Your task to perform on an android device: Open the web browser Image 0: 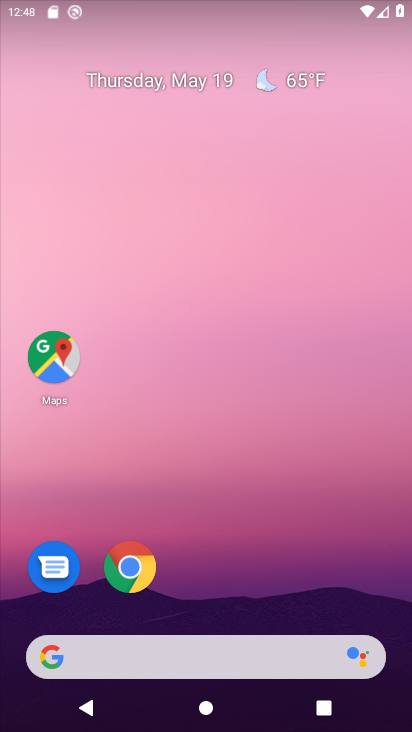
Step 0: click (129, 570)
Your task to perform on an android device: Open the web browser Image 1: 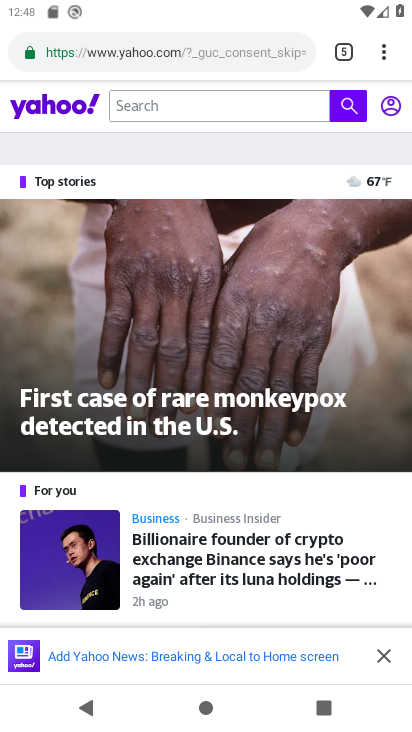
Step 1: task complete